Your task to perform on an android device: Go to Reddit.com Image 0: 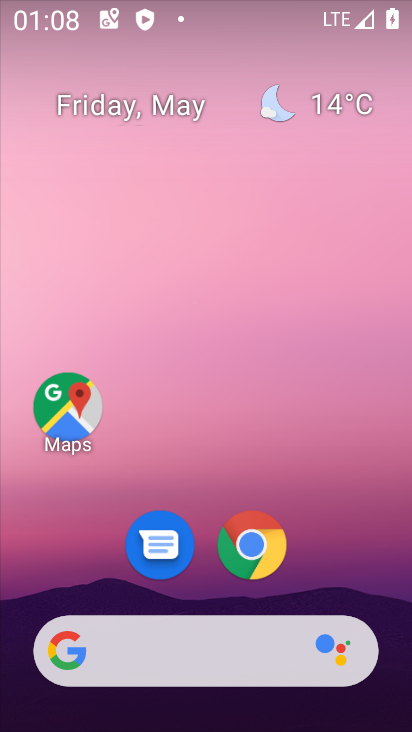
Step 0: click (255, 555)
Your task to perform on an android device: Go to Reddit.com Image 1: 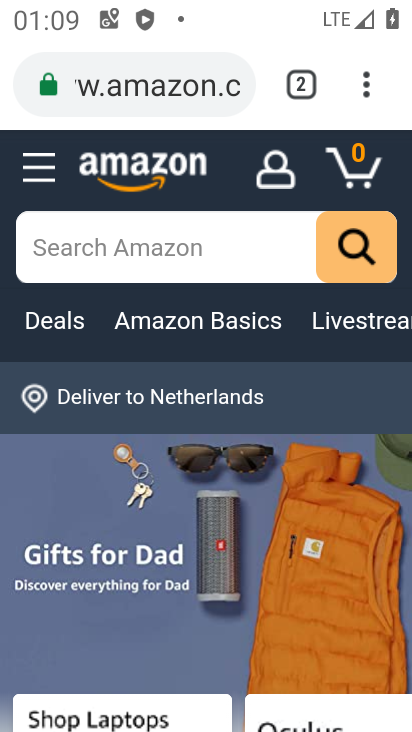
Step 1: press back button
Your task to perform on an android device: Go to Reddit.com Image 2: 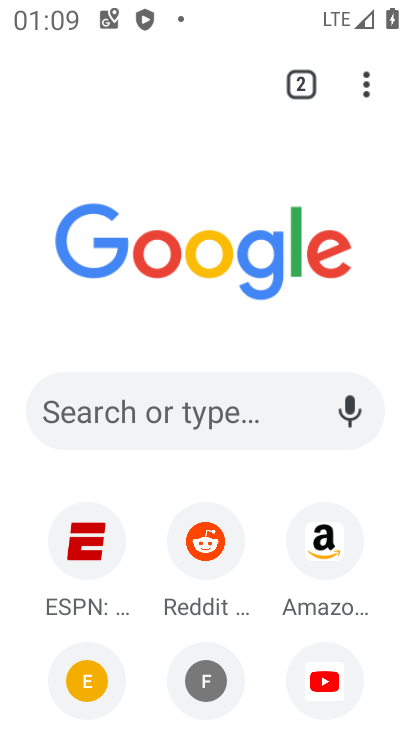
Step 2: click (224, 563)
Your task to perform on an android device: Go to Reddit.com Image 3: 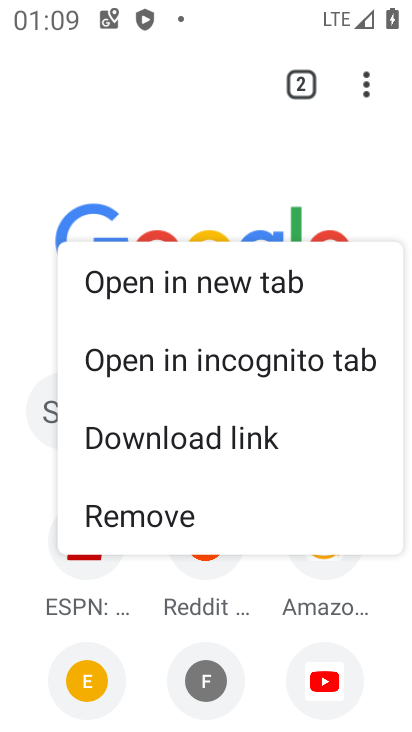
Step 3: click (201, 584)
Your task to perform on an android device: Go to Reddit.com Image 4: 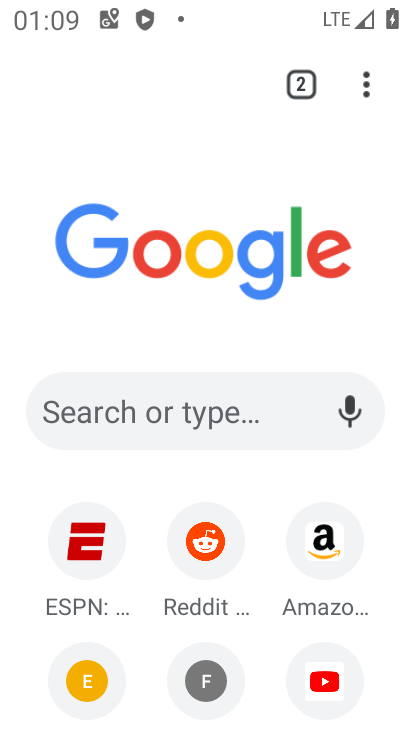
Step 4: click (206, 556)
Your task to perform on an android device: Go to Reddit.com Image 5: 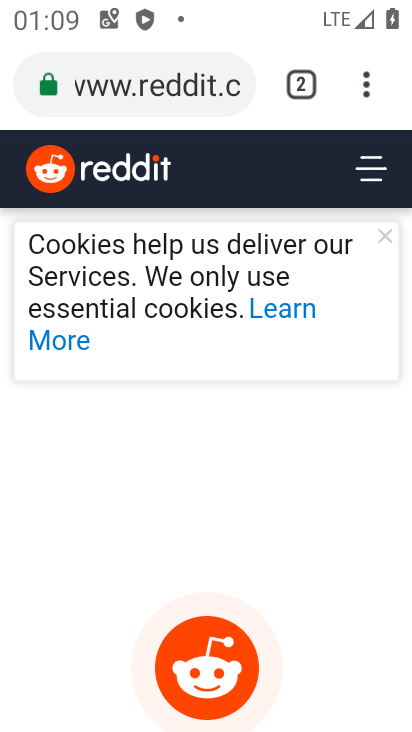
Step 5: task complete